Your task to perform on an android device: check out phone information Image 0: 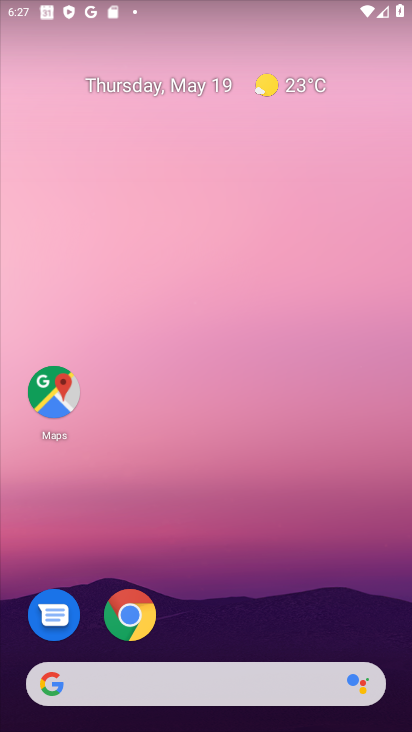
Step 0: drag from (294, 593) to (298, 125)
Your task to perform on an android device: check out phone information Image 1: 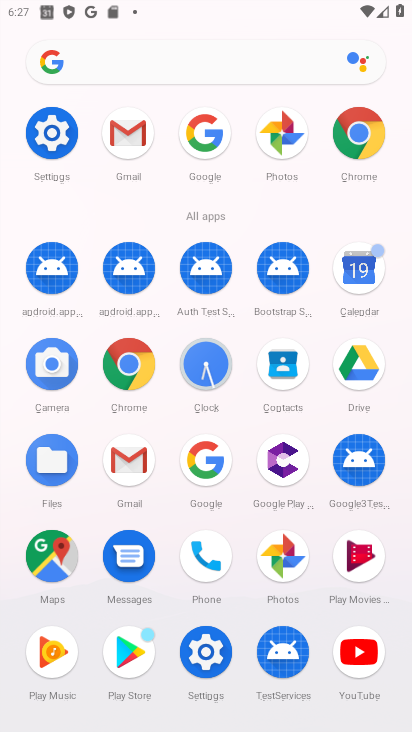
Step 1: click (39, 135)
Your task to perform on an android device: check out phone information Image 2: 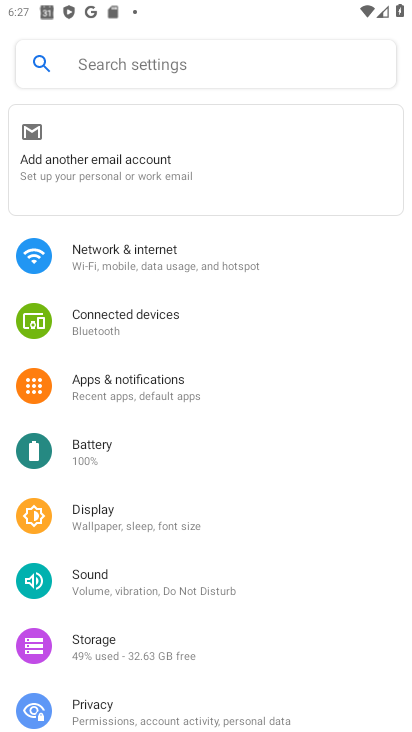
Step 2: drag from (240, 613) to (251, 2)
Your task to perform on an android device: check out phone information Image 3: 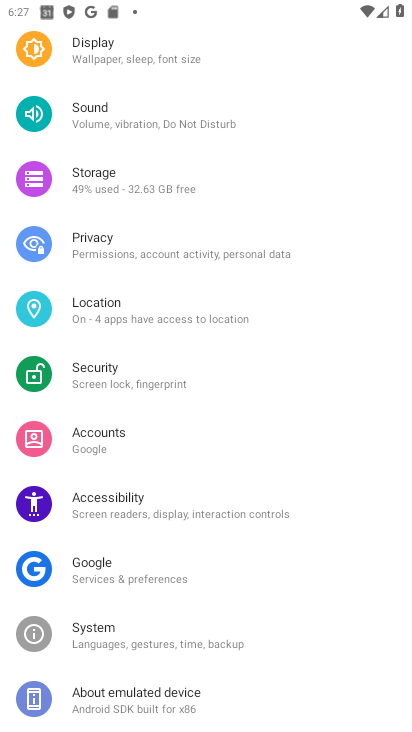
Step 3: click (163, 717)
Your task to perform on an android device: check out phone information Image 4: 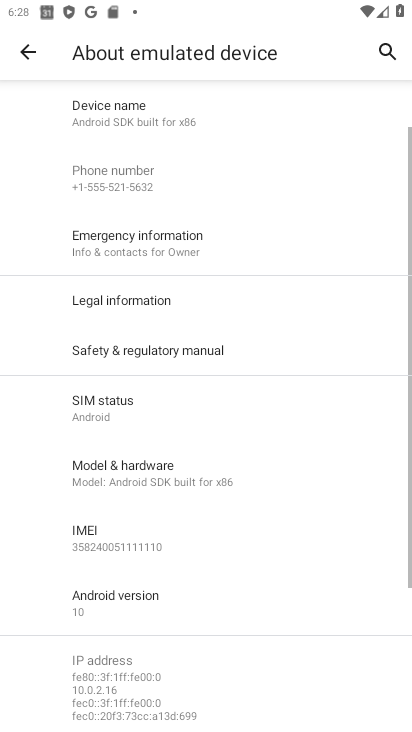
Step 4: task complete